Your task to perform on an android device: check the backup settings in the google photos Image 0: 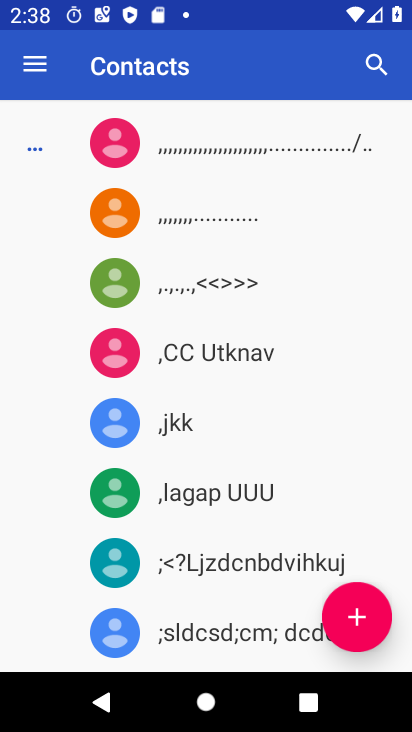
Step 0: press home button
Your task to perform on an android device: check the backup settings in the google photos Image 1: 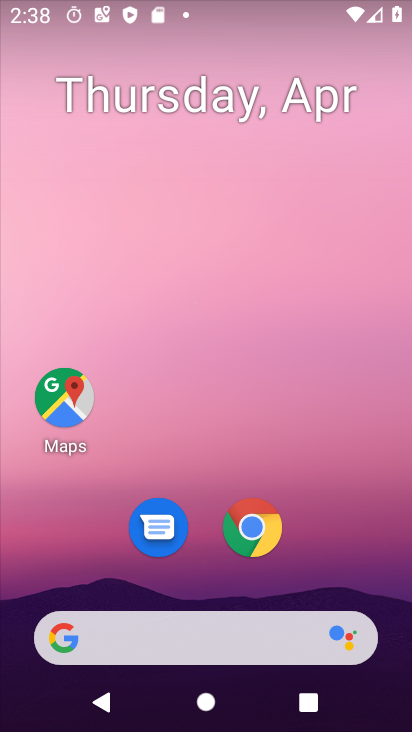
Step 1: drag from (312, 564) to (310, 158)
Your task to perform on an android device: check the backup settings in the google photos Image 2: 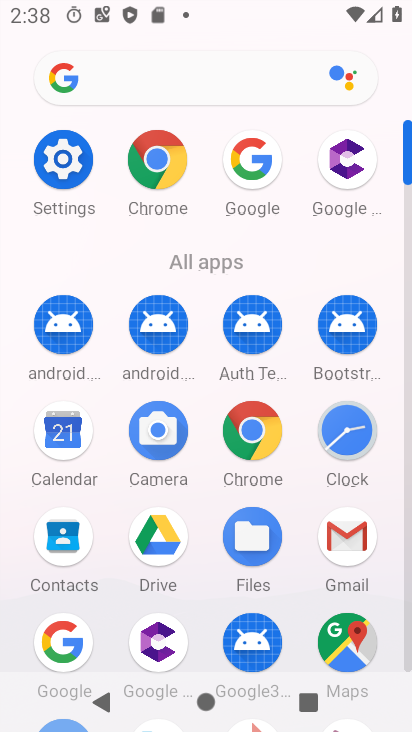
Step 2: drag from (307, 598) to (321, 276)
Your task to perform on an android device: check the backup settings in the google photos Image 3: 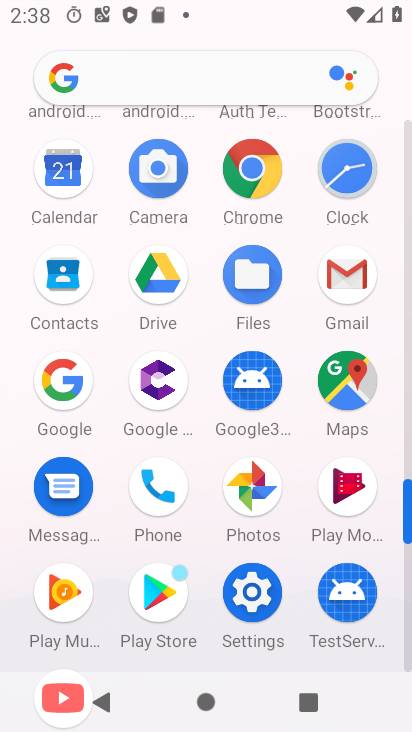
Step 3: click (253, 483)
Your task to perform on an android device: check the backup settings in the google photos Image 4: 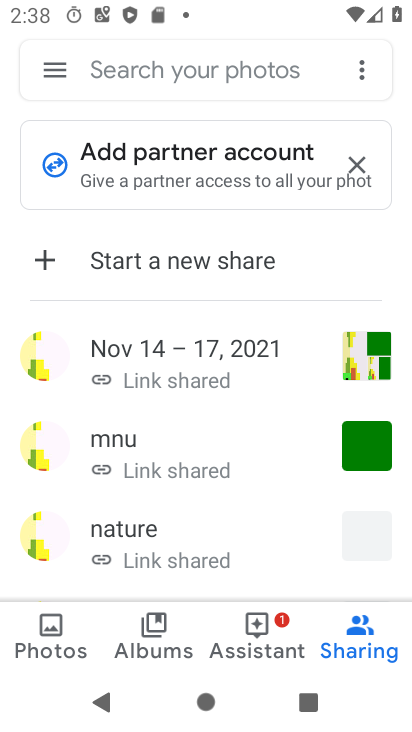
Step 4: click (58, 64)
Your task to perform on an android device: check the backup settings in the google photos Image 5: 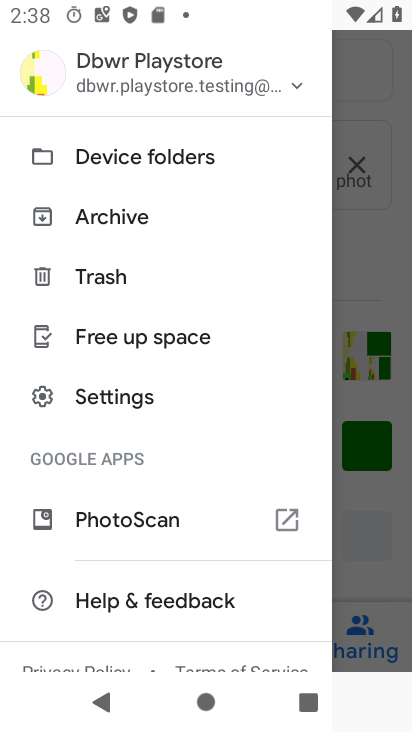
Step 5: drag from (125, 586) to (235, 195)
Your task to perform on an android device: check the backup settings in the google photos Image 6: 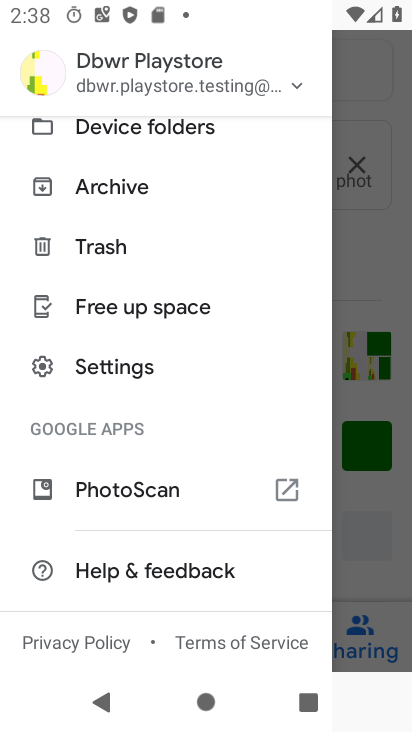
Step 6: click (129, 367)
Your task to perform on an android device: check the backup settings in the google photos Image 7: 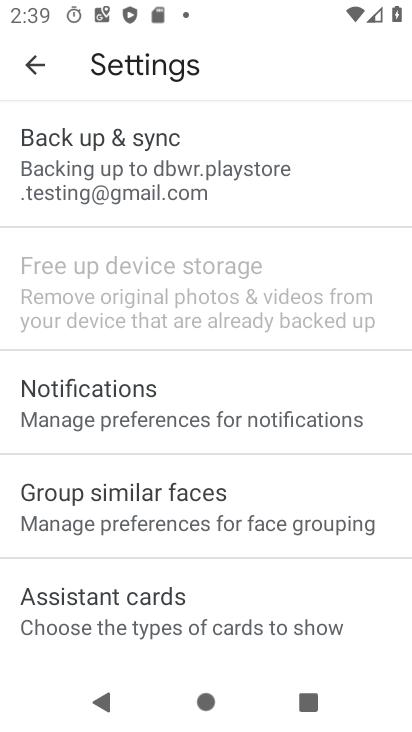
Step 7: click (152, 187)
Your task to perform on an android device: check the backup settings in the google photos Image 8: 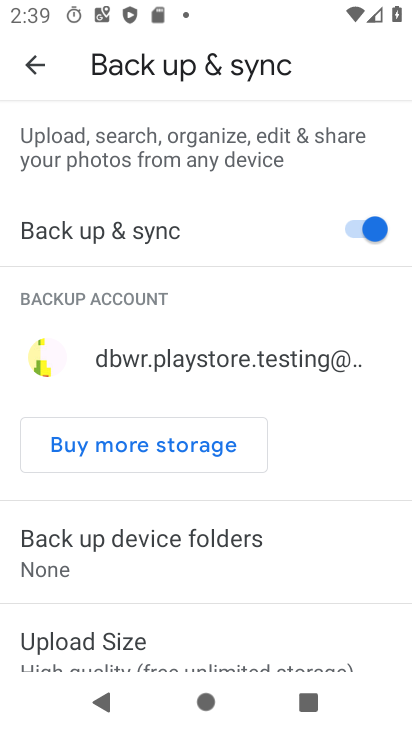
Step 8: task complete